Your task to perform on an android device: Go to ESPN.com Image 0: 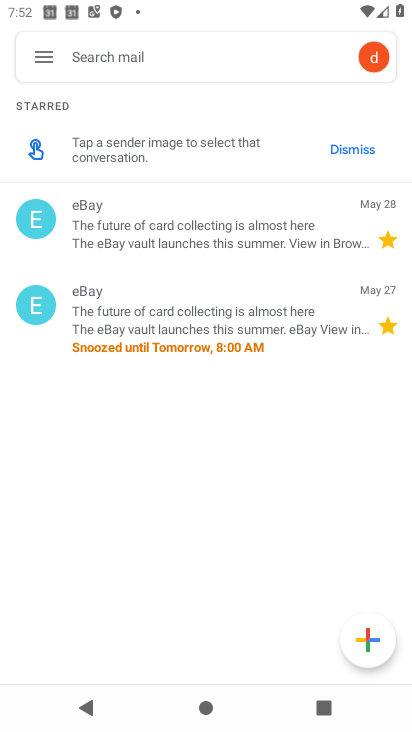
Step 0: press back button
Your task to perform on an android device: Go to ESPN.com Image 1: 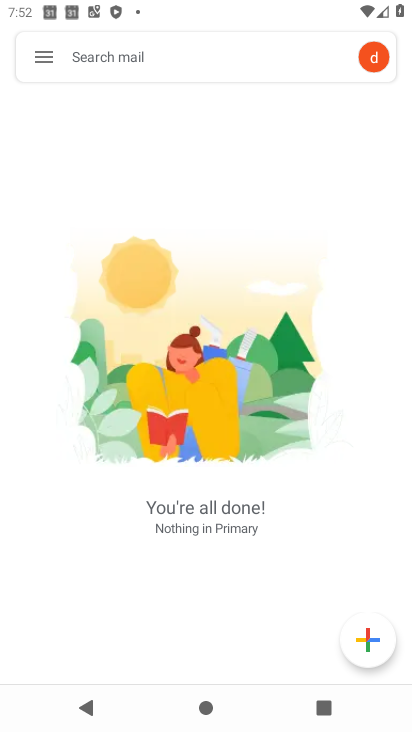
Step 1: press back button
Your task to perform on an android device: Go to ESPN.com Image 2: 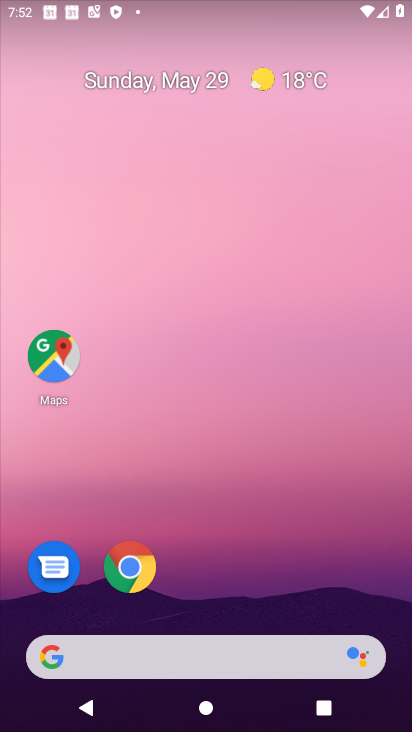
Step 2: click (132, 568)
Your task to perform on an android device: Go to ESPN.com Image 3: 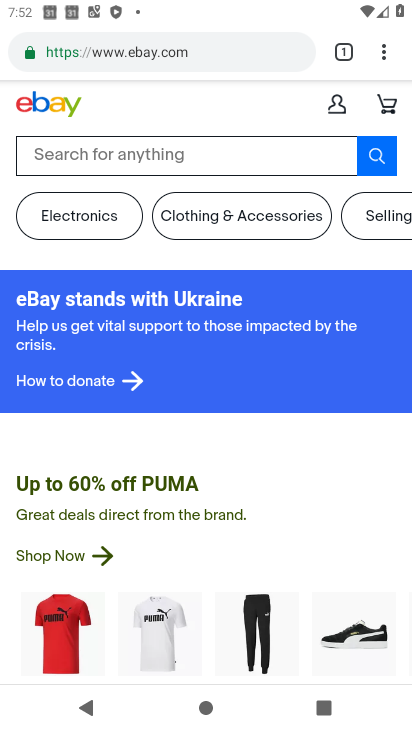
Step 3: click (220, 46)
Your task to perform on an android device: Go to ESPN.com Image 4: 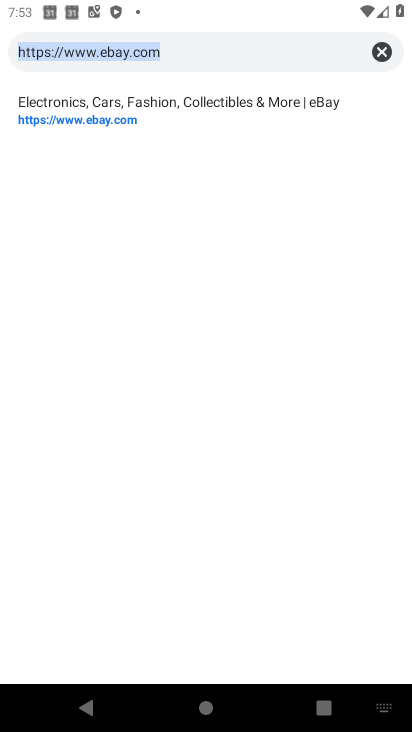
Step 4: type "ESPN.com"
Your task to perform on an android device: Go to ESPN.com Image 5: 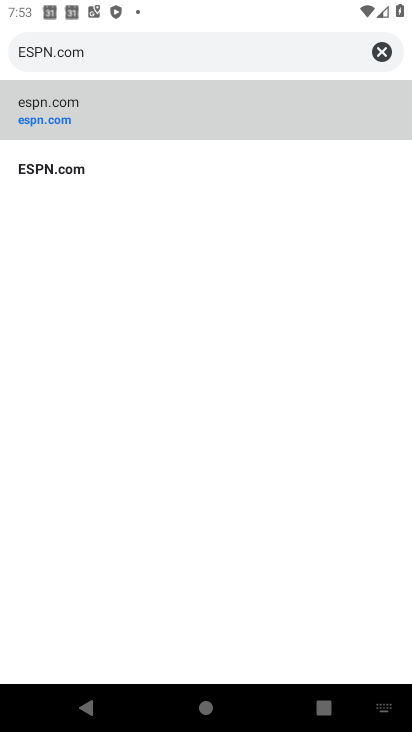
Step 5: click (65, 174)
Your task to perform on an android device: Go to ESPN.com Image 6: 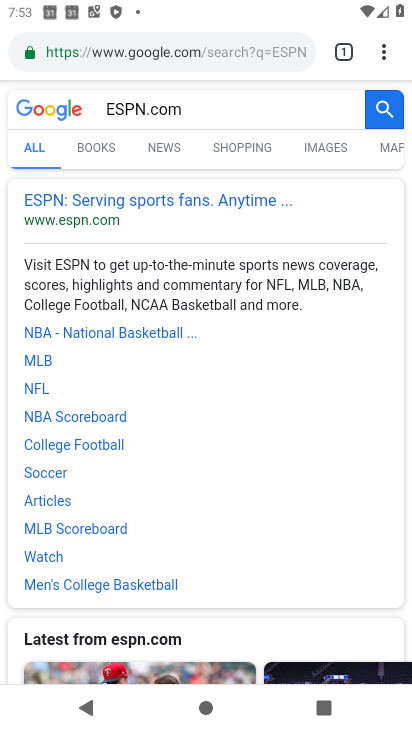
Step 6: click (77, 211)
Your task to perform on an android device: Go to ESPN.com Image 7: 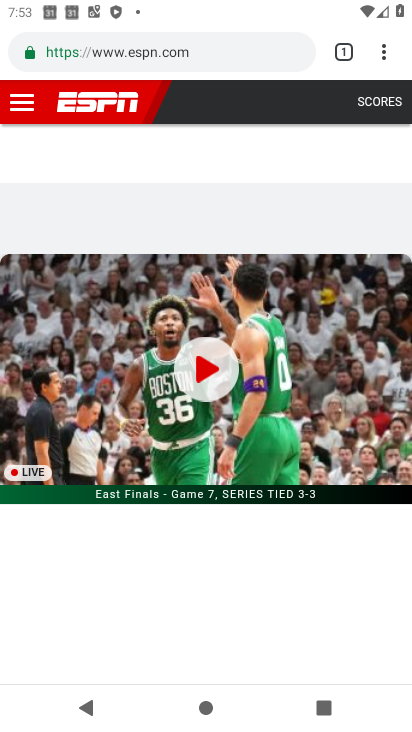
Step 7: task complete